Your task to perform on an android device: change the clock display to digital Image 0: 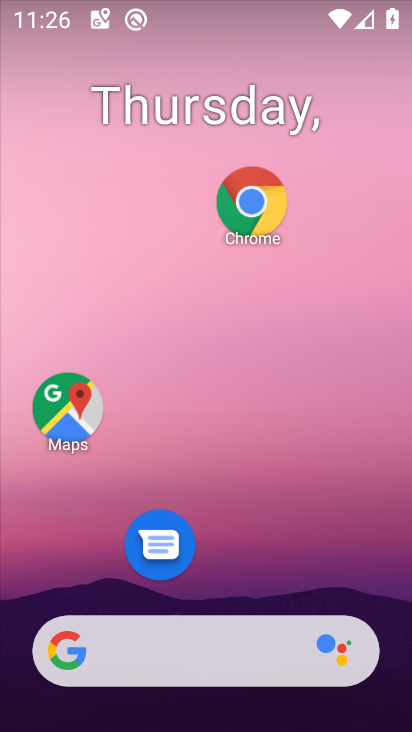
Step 0: drag from (281, 577) to (221, 106)
Your task to perform on an android device: change the clock display to digital Image 1: 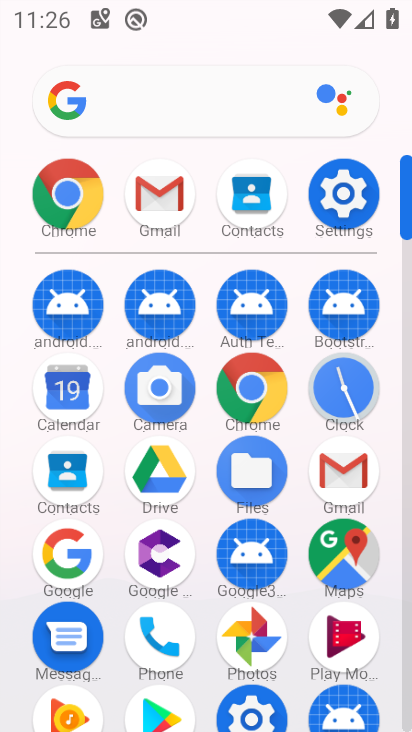
Step 1: click (336, 391)
Your task to perform on an android device: change the clock display to digital Image 2: 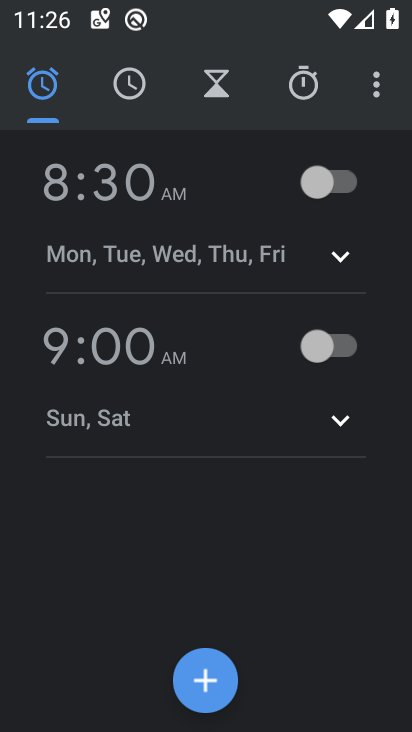
Step 2: click (382, 84)
Your task to perform on an android device: change the clock display to digital Image 3: 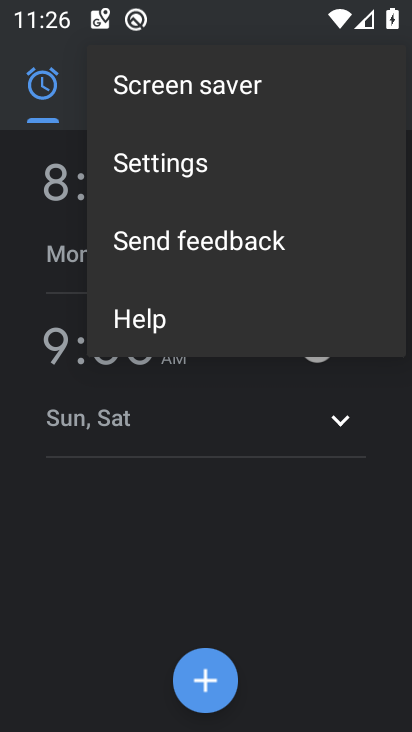
Step 3: click (245, 169)
Your task to perform on an android device: change the clock display to digital Image 4: 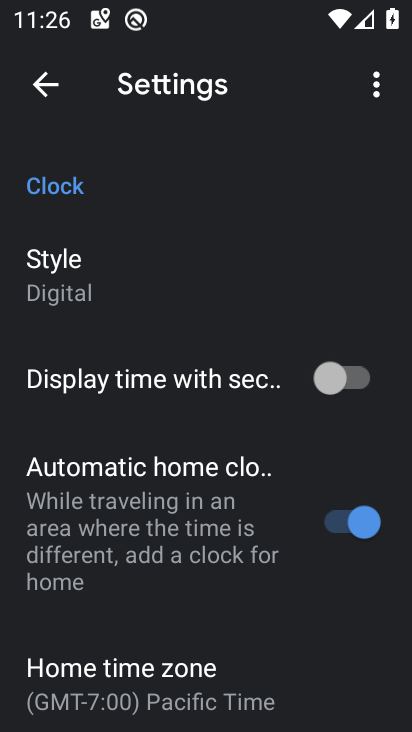
Step 4: task complete